Your task to perform on an android device: Go to wifi settings Image 0: 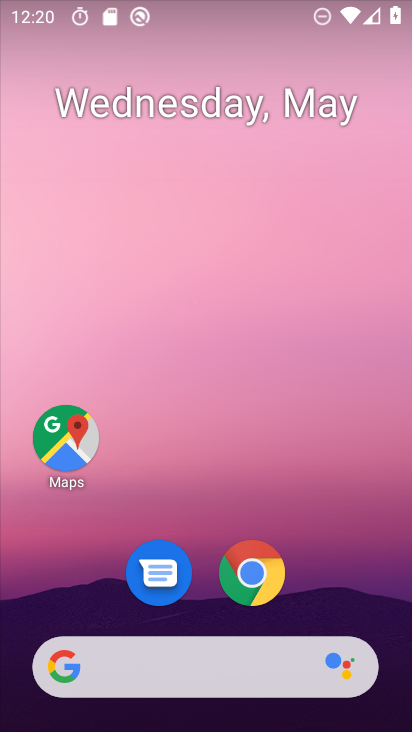
Step 0: drag from (346, 520) to (257, 63)
Your task to perform on an android device: Go to wifi settings Image 1: 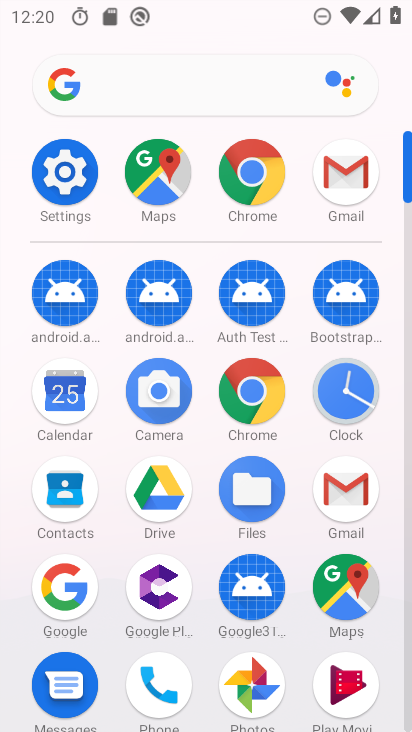
Step 1: drag from (21, 574) to (30, 266)
Your task to perform on an android device: Go to wifi settings Image 2: 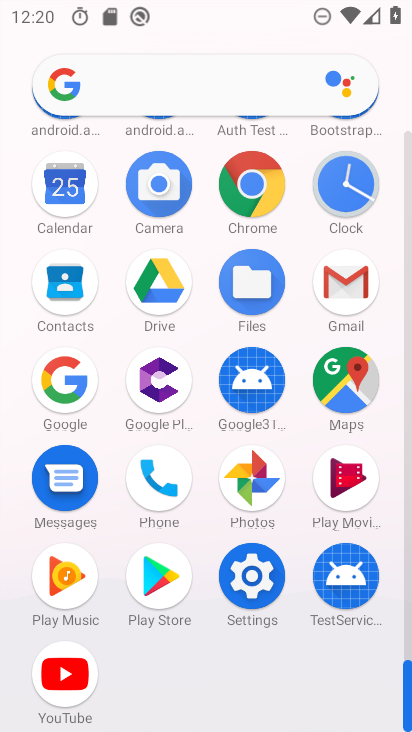
Step 2: click (251, 578)
Your task to perform on an android device: Go to wifi settings Image 3: 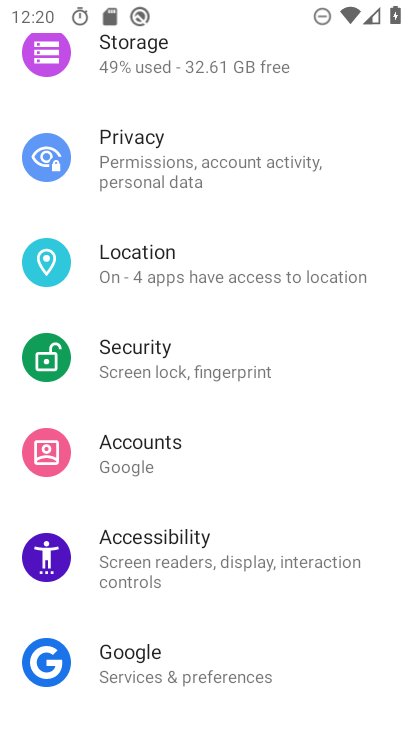
Step 3: drag from (234, 572) to (226, 164)
Your task to perform on an android device: Go to wifi settings Image 4: 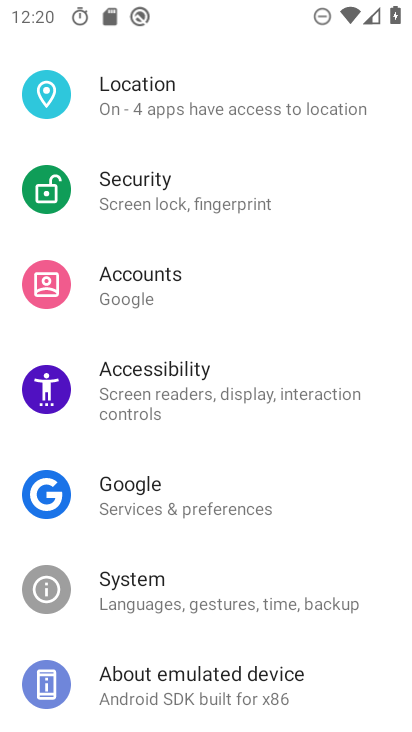
Step 4: drag from (282, 165) to (285, 651)
Your task to perform on an android device: Go to wifi settings Image 5: 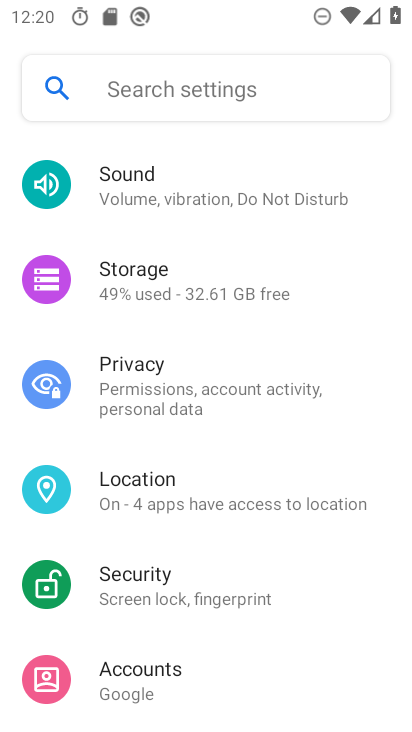
Step 5: drag from (247, 210) to (247, 576)
Your task to perform on an android device: Go to wifi settings Image 6: 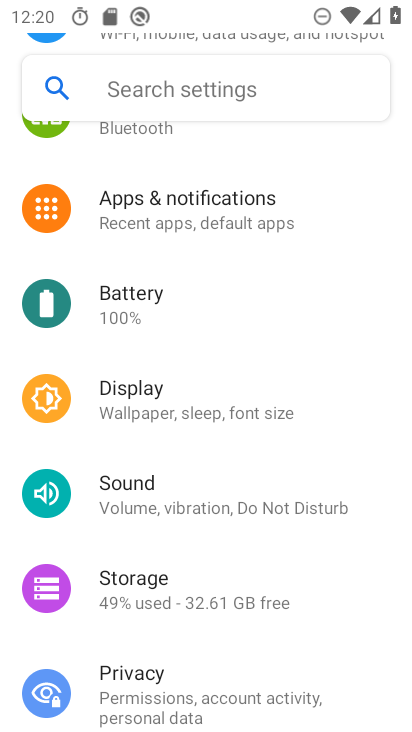
Step 6: drag from (276, 166) to (278, 563)
Your task to perform on an android device: Go to wifi settings Image 7: 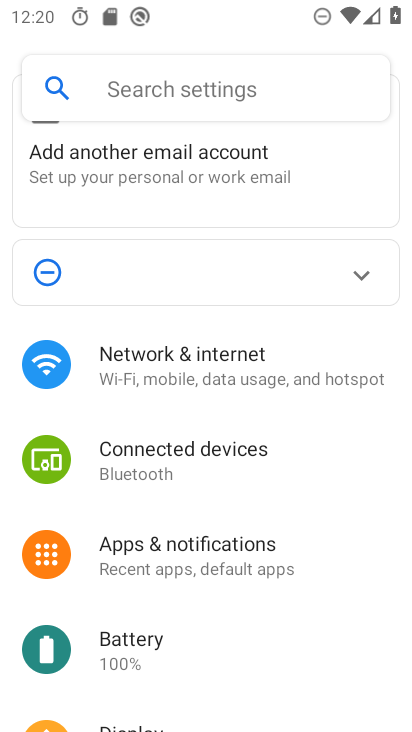
Step 7: click (241, 375)
Your task to perform on an android device: Go to wifi settings Image 8: 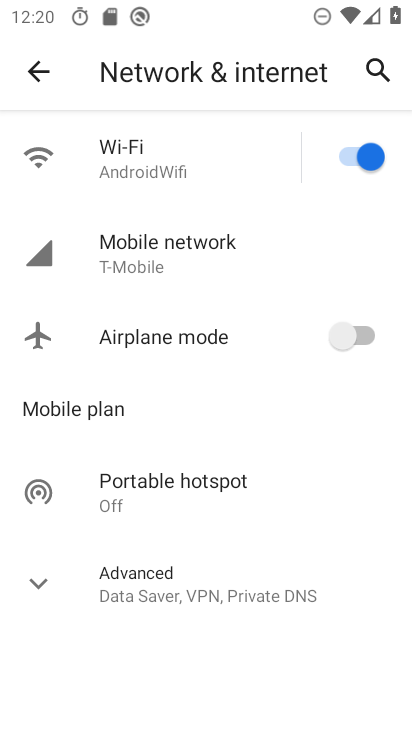
Step 8: click (56, 590)
Your task to perform on an android device: Go to wifi settings Image 9: 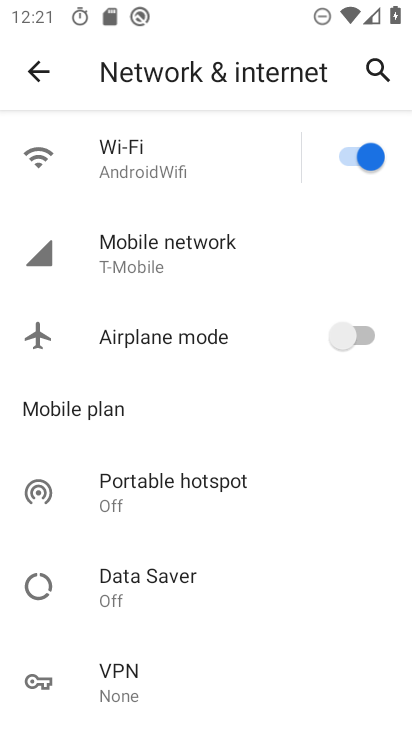
Step 9: click (162, 145)
Your task to perform on an android device: Go to wifi settings Image 10: 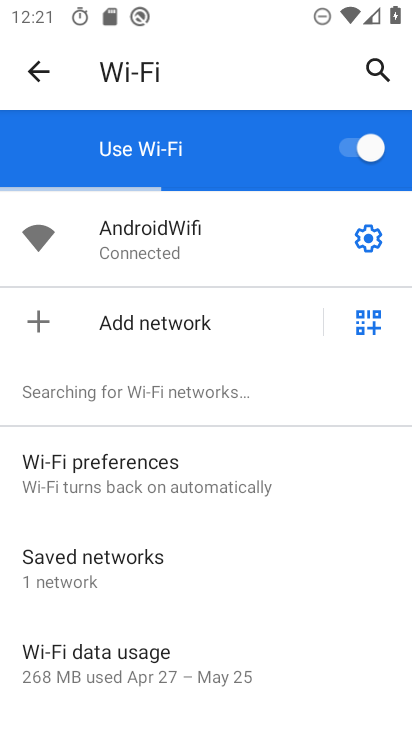
Step 10: click (242, 248)
Your task to perform on an android device: Go to wifi settings Image 11: 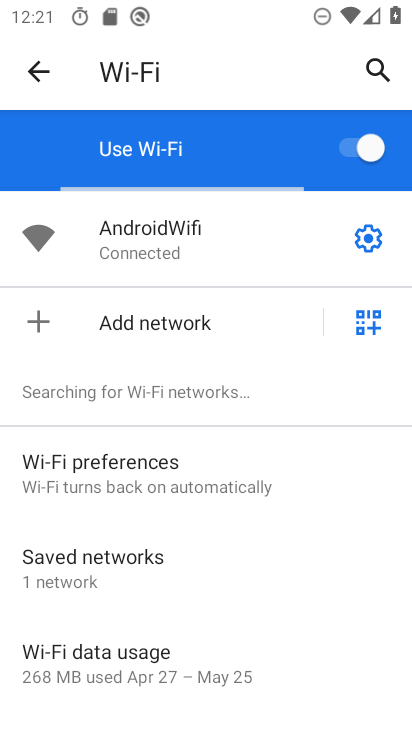
Step 11: task complete